Your task to perform on an android device: turn on notifications settings in the gmail app Image 0: 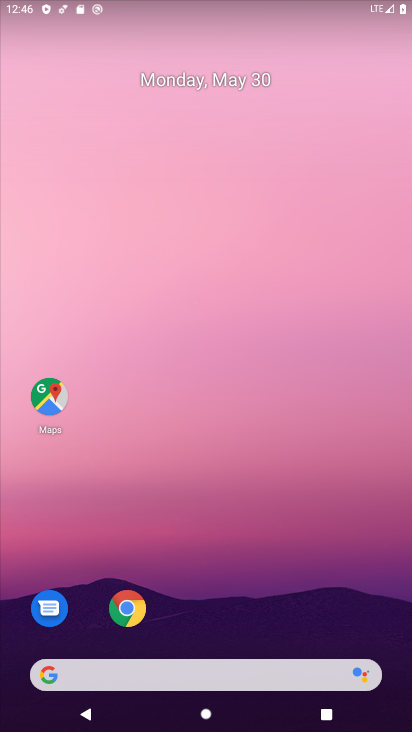
Step 0: drag from (199, 641) to (189, 0)
Your task to perform on an android device: turn on notifications settings in the gmail app Image 1: 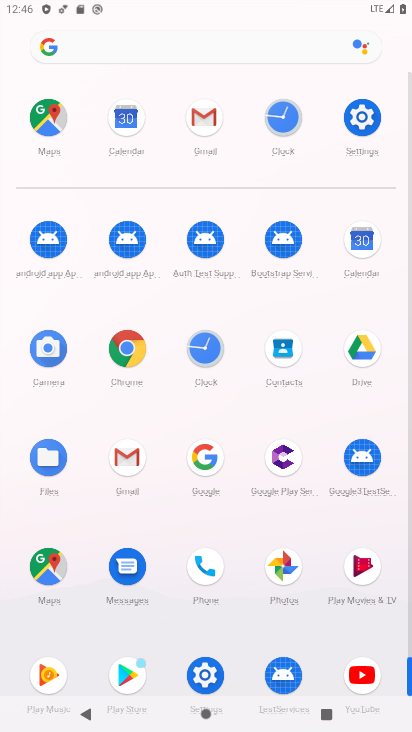
Step 1: click (133, 461)
Your task to perform on an android device: turn on notifications settings in the gmail app Image 2: 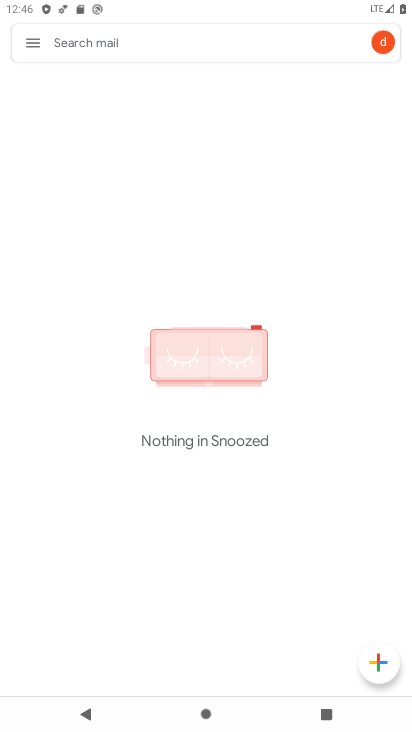
Step 2: click (34, 37)
Your task to perform on an android device: turn on notifications settings in the gmail app Image 3: 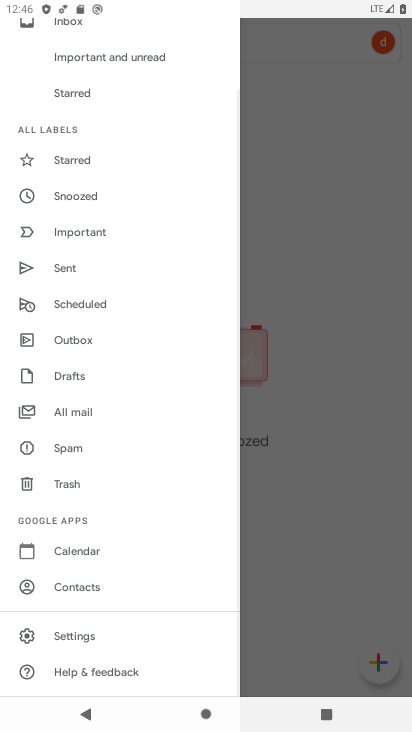
Step 3: drag from (98, 667) to (124, 560)
Your task to perform on an android device: turn on notifications settings in the gmail app Image 4: 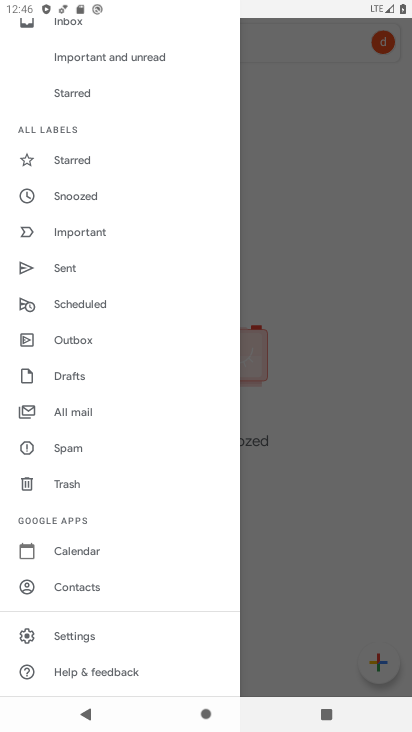
Step 4: click (103, 639)
Your task to perform on an android device: turn on notifications settings in the gmail app Image 5: 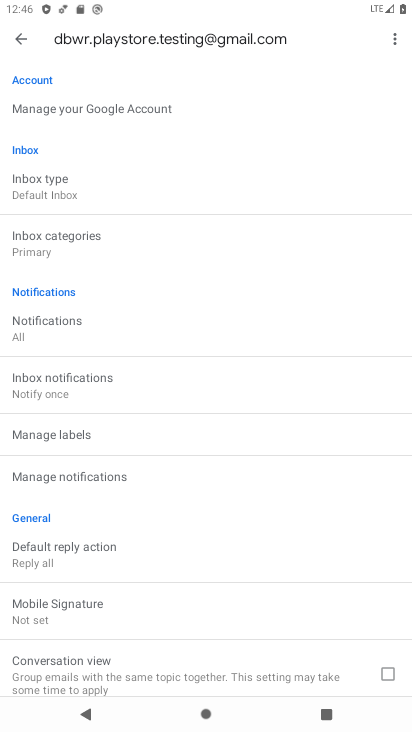
Step 5: click (16, 31)
Your task to perform on an android device: turn on notifications settings in the gmail app Image 6: 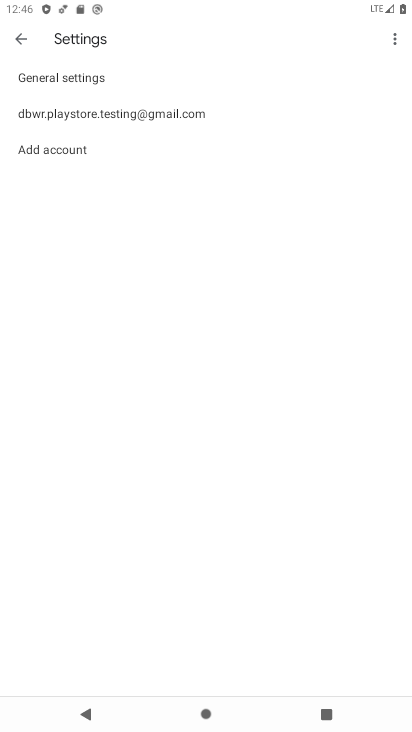
Step 6: click (99, 80)
Your task to perform on an android device: turn on notifications settings in the gmail app Image 7: 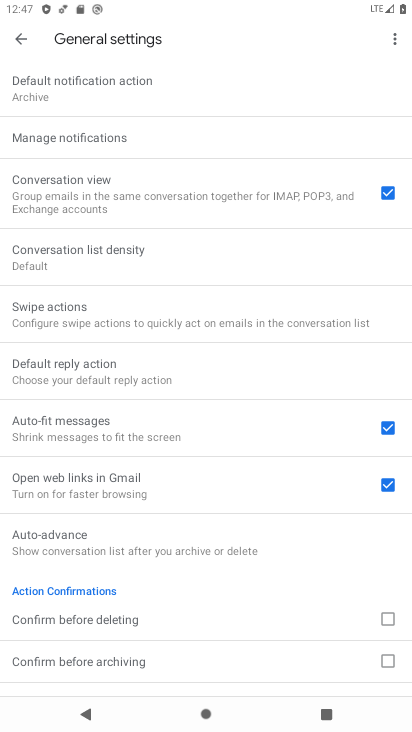
Step 7: click (89, 145)
Your task to perform on an android device: turn on notifications settings in the gmail app Image 8: 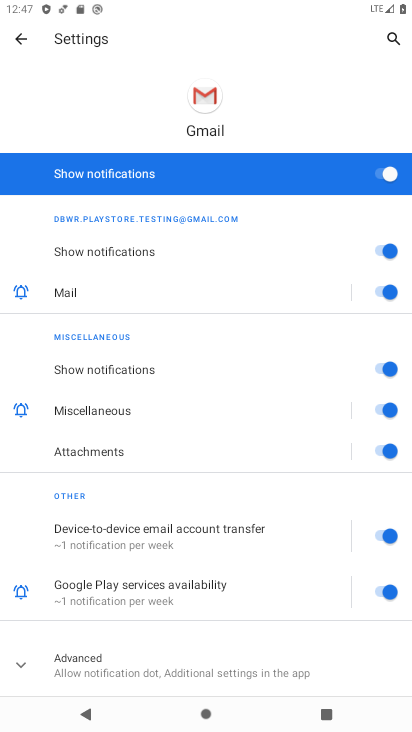
Step 8: task complete